Your task to perform on an android device: Open notification settings Image 0: 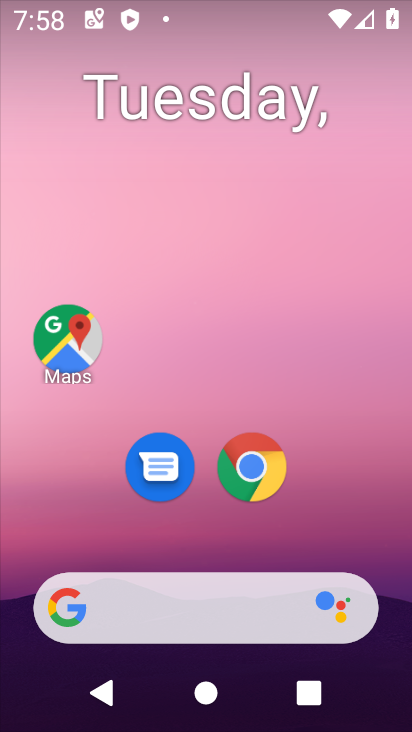
Step 0: drag from (381, 551) to (302, 138)
Your task to perform on an android device: Open notification settings Image 1: 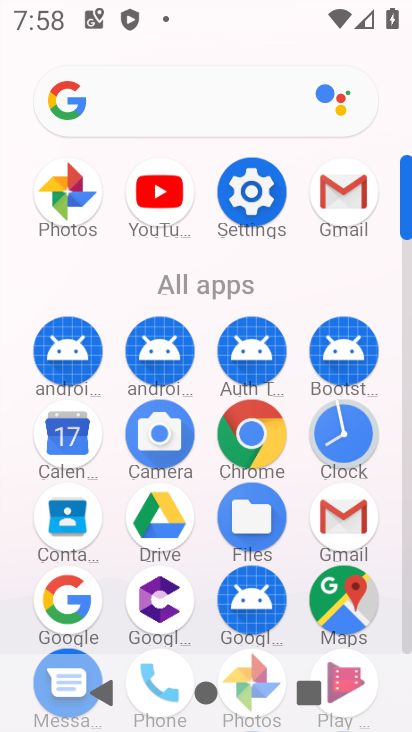
Step 1: click (274, 194)
Your task to perform on an android device: Open notification settings Image 2: 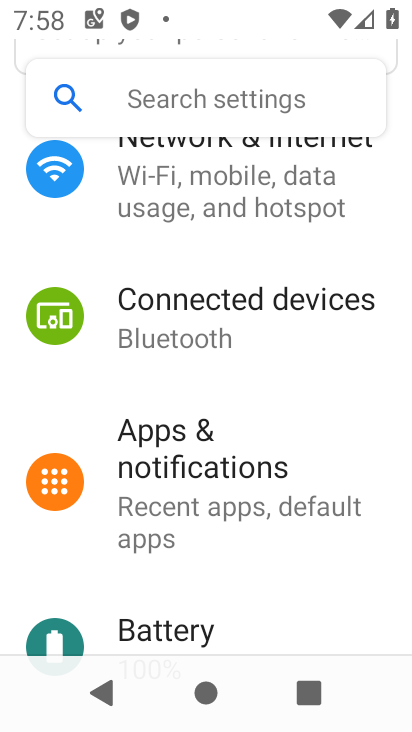
Step 2: click (291, 484)
Your task to perform on an android device: Open notification settings Image 3: 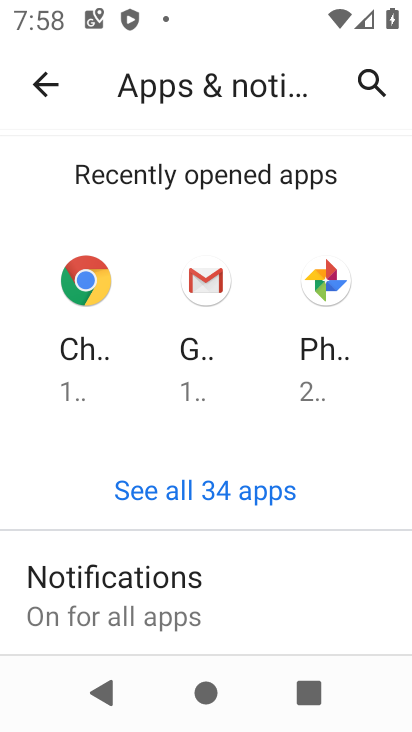
Step 3: drag from (307, 587) to (256, 266)
Your task to perform on an android device: Open notification settings Image 4: 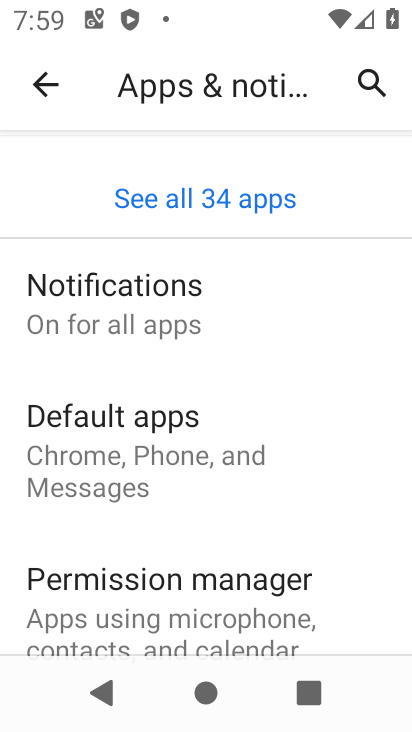
Step 4: click (256, 289)
Your task to perform on an android device: Open notification settings Image 5: 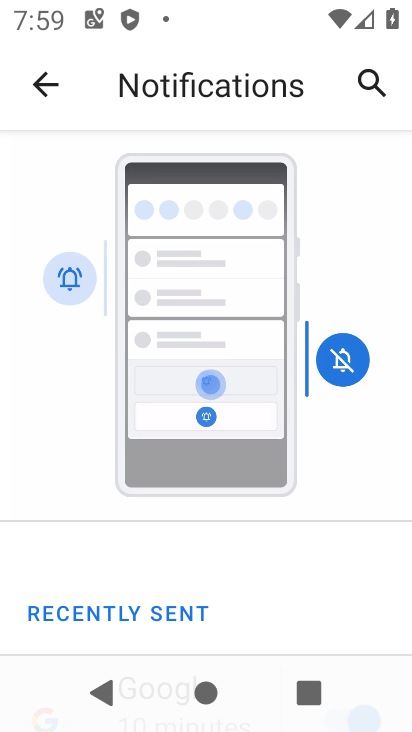
Step 5: drag from (288, 563) to (217, 205)
Your task to perform on an android device: Open notification settings Image 6: 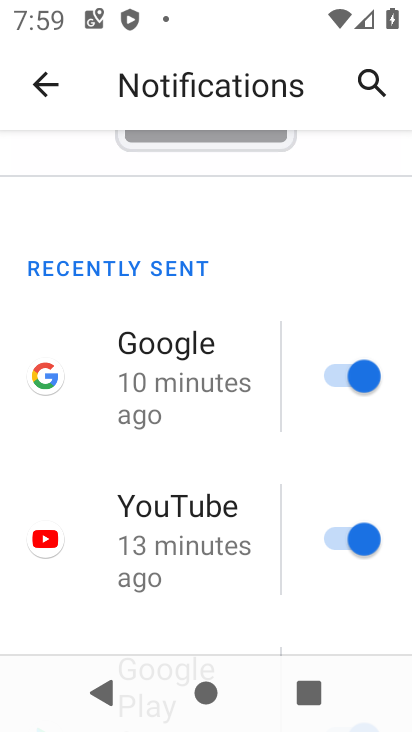
Step 6: drag from (251, 597) to (221, 214)
Your task to perform on an android device: Open notification settings Image 7: 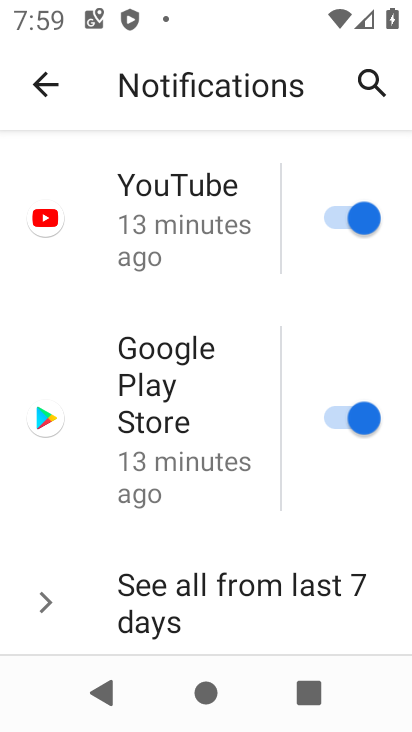
Step 7: drag from (285, 513) to (260, 136)
Your task to perform on an android device: Open notification settings Image 8: 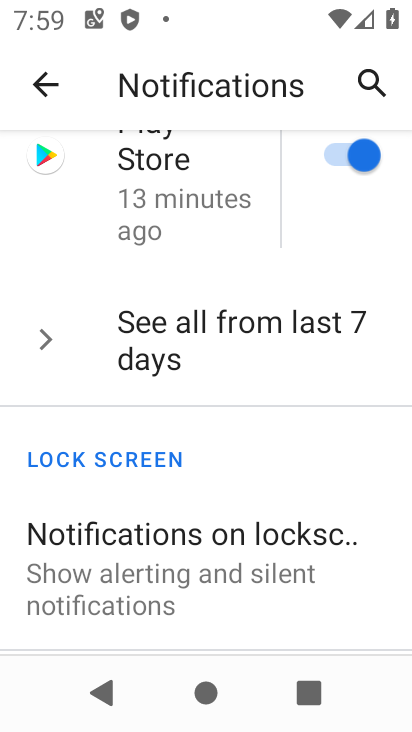
Step 8: drag from (297, 445) to (281, 55)
Your task to perform on an android device: Open notification settings Image 9: 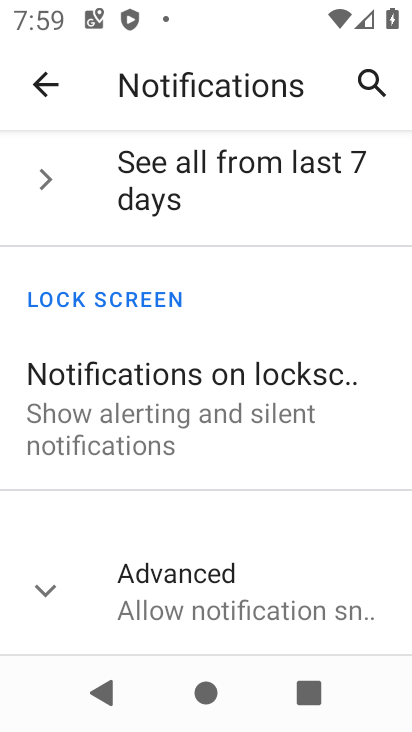
Step 9: click (288, 593)
Your task to perform on an android device: Open notification settings Image 10: 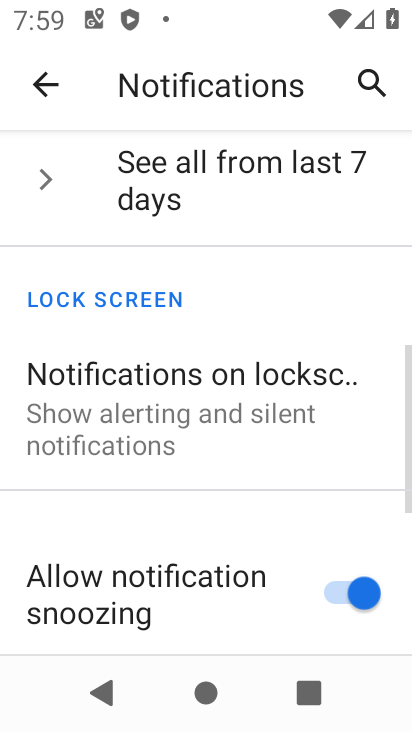
Step 10: drag from (280, 516) to (252, 93)
Your task to perform on an android device: Open notification settings Image 11: 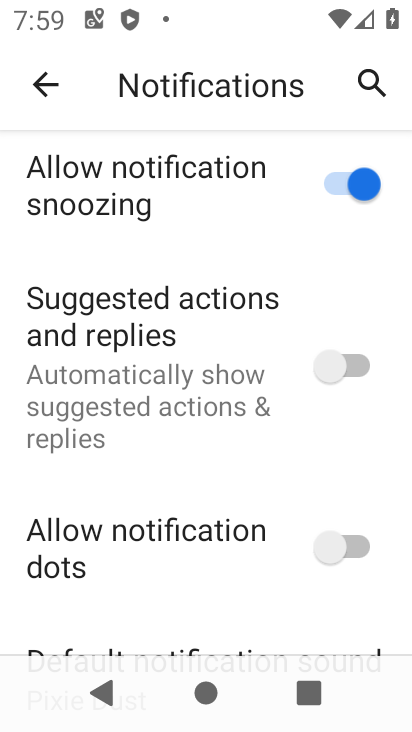
Step 11: click (339, 175)
Your task to perform on an android device: Open notification settings Image 12: 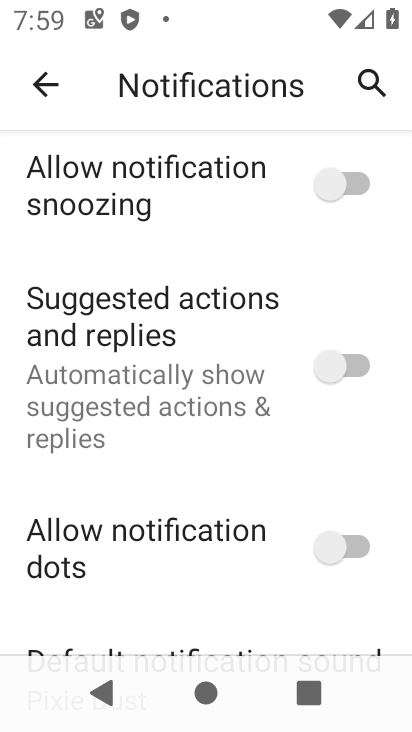
Step 12: task complete